Your task to perform on an android device: open a bookmark in the chrome app Image 0: 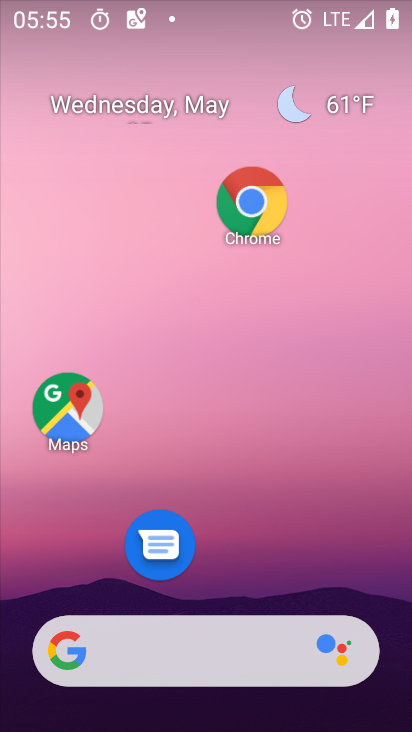
Step 0: click (257, 202)
Your task to perform on an android device: open a bookmark in the chrome app Image 1: 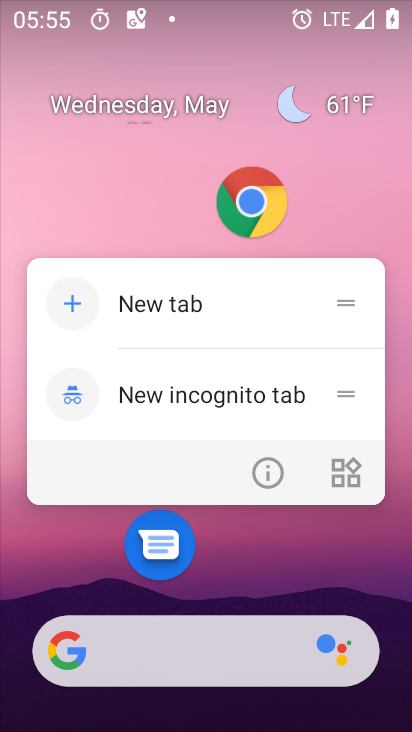
Step 1: click (258, 213)
Your task to perform on an android device: open a bookmark in the chrome app Image 2: 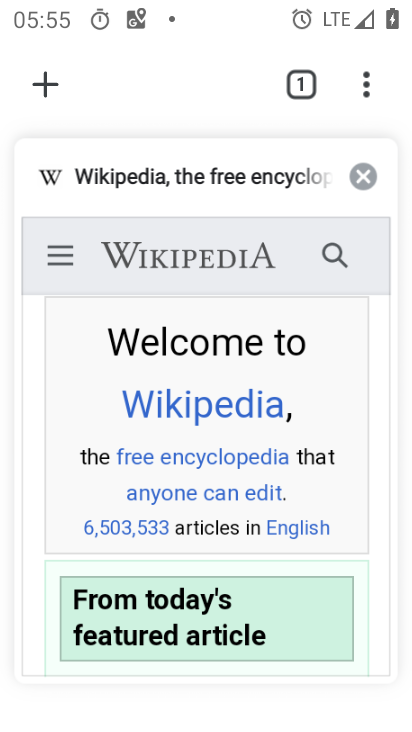
Step 2: click (364, 173)
Your task to perform on an android device: open a bookmark in the chrome app Image 3: 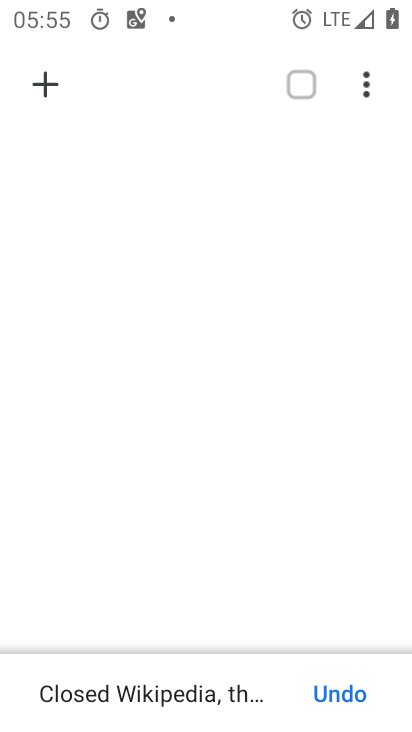
Step 3: click (362, 83)
Your task to perform on an android device: open a bookmark in the chrome app Image 4: 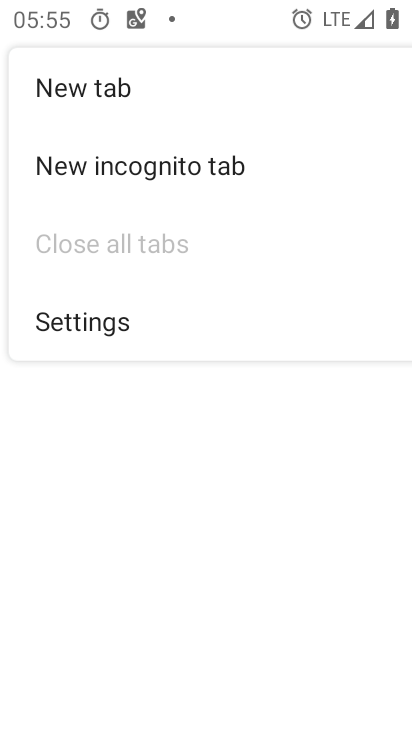
Step 4: click (104, 456)
Your task to perform on an android device: open a bookmark in the chrome app Image 5: 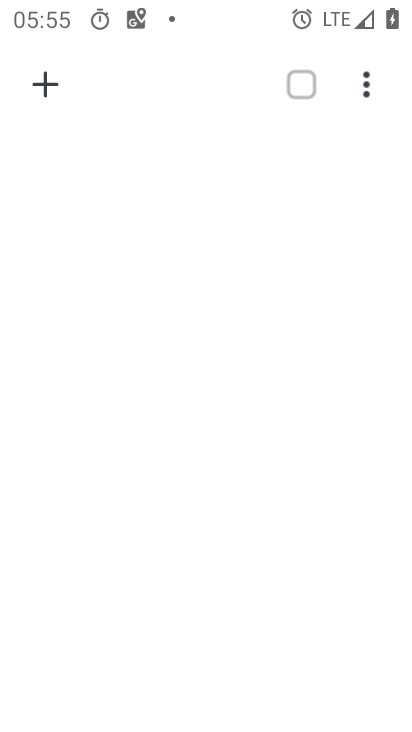
Step 5: click (50, 79)
Your task to perform on an android device: open a bookmark in the chrome app Image 6: 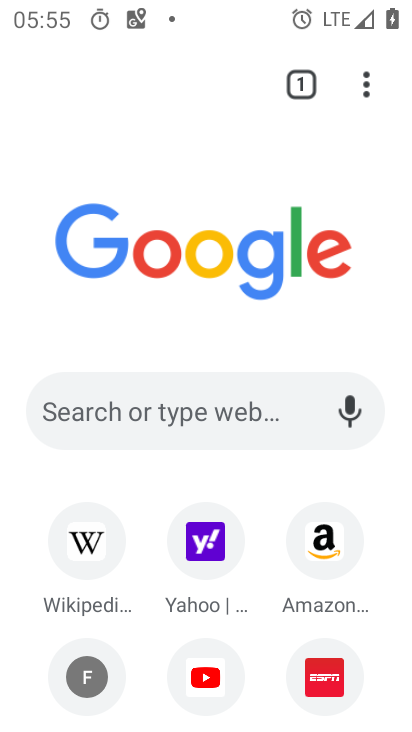
Step 6: click (365, 75)
Your task to perform on an android device: open a bookmark in the chrome app Image 7: 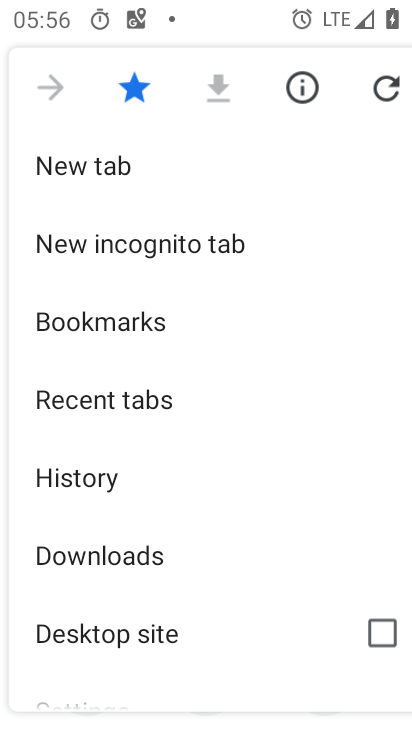
Step 7: drag from (155, 599) to (133, 343)
Your task to perform on an android device: open a bookmark in the chrome app Image 8: 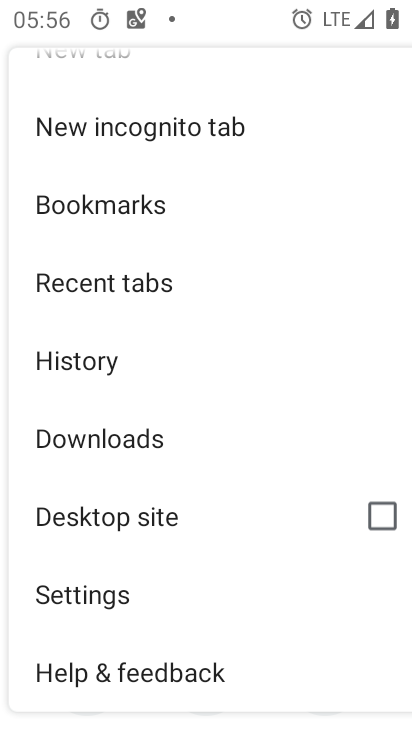
Step 8: click (116, 208)
Your task to perform on an android device: open a bookmark in the chrome app Image 9: 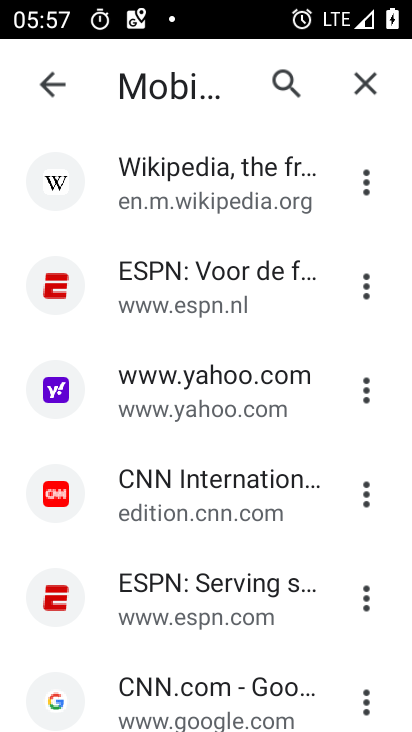
Step 9: task complete